Your task to perform on an android device: snooze an email in the gmail app Image 0: 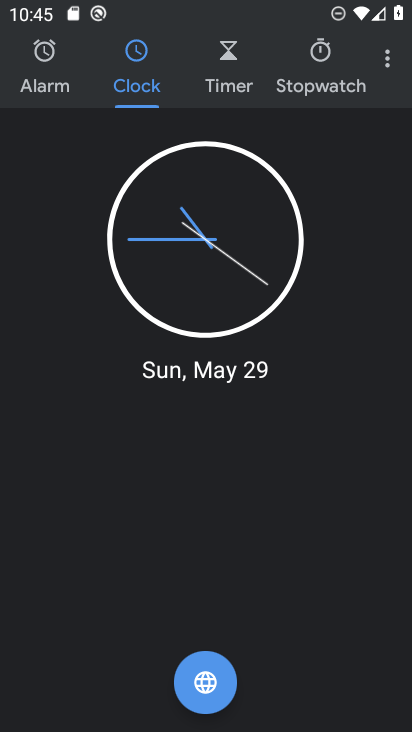
Step 0: press home button
Your task to perform on an android device: snooze an email in the gmail app Image 1: 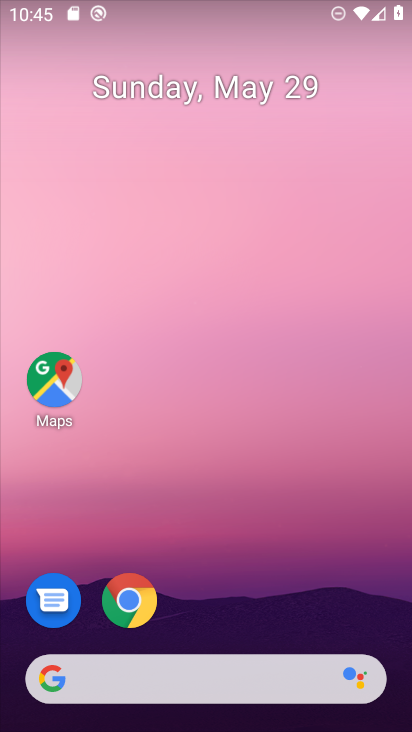
Step 1: drag from (210, 729) to (214, 234)
Your task to perform on an android device: snooze an email in the gmail app Image 2: 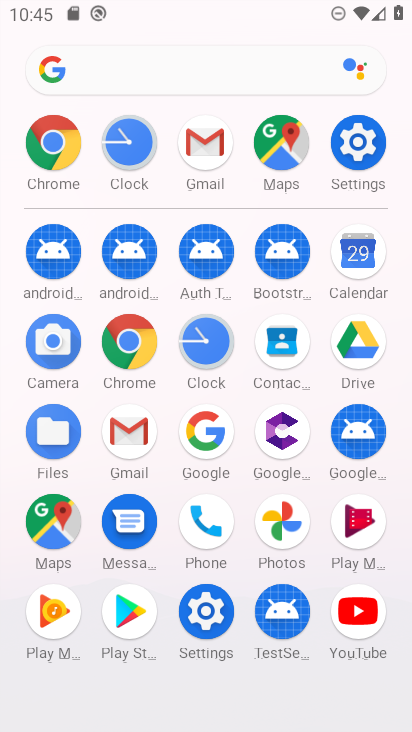
Step 2: click (132, 434)
Your task to perform on an android device: snooze an email in the gmail app Image 3: 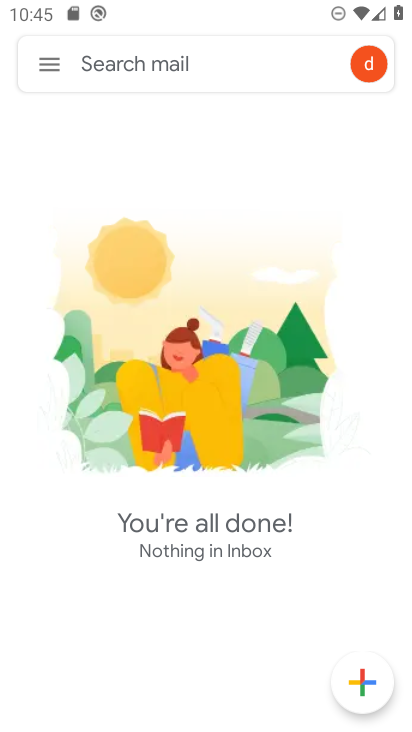
Step 3: task complete